Your task to perform on an android device: empty trash in google photos Image 0: 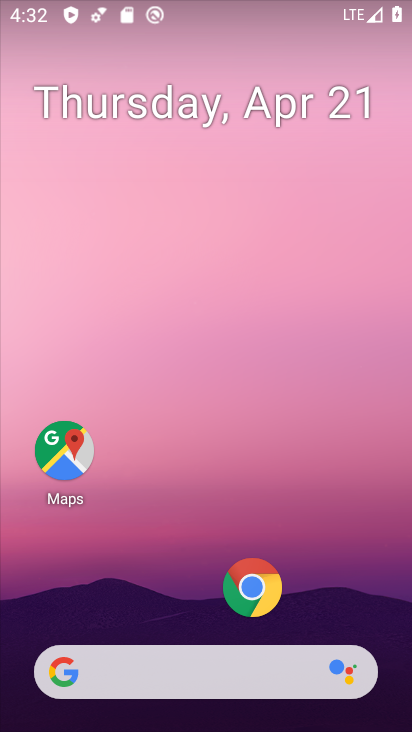
Step 0: drag from (181, 436) to (240, 110)
Your task to perform on an android device: empty trash in google photos Image 1: 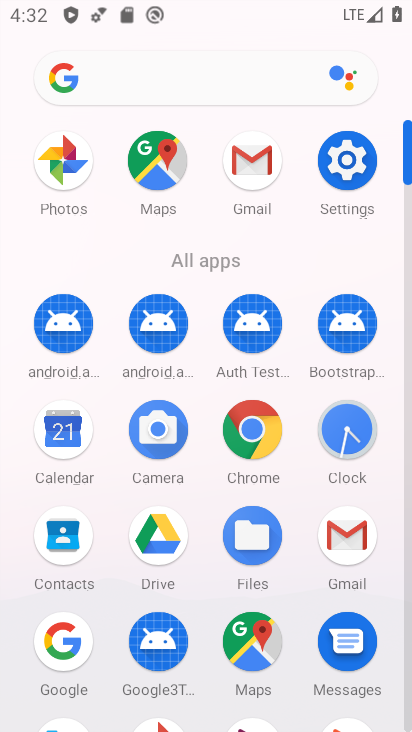
Step 1: drag from (203, 674) to (283, 379)
Your task to perform on an android device: empty trash in google photos Image 2: 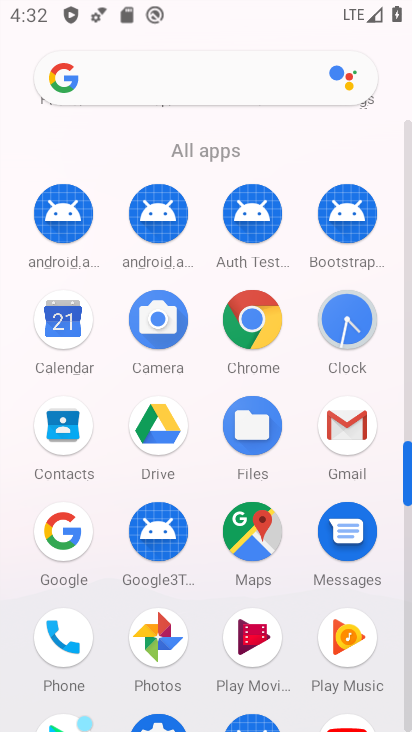
Step 2: click (158, 640)
Your task to perform on an android device: empty trash in google photos Image 3: 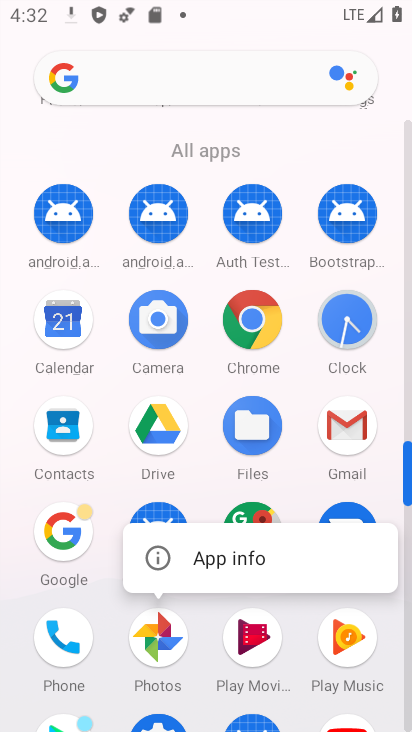
Step 3: click (140, 647)
Your task to perform on an android device: empty trash in google photos Image 4: 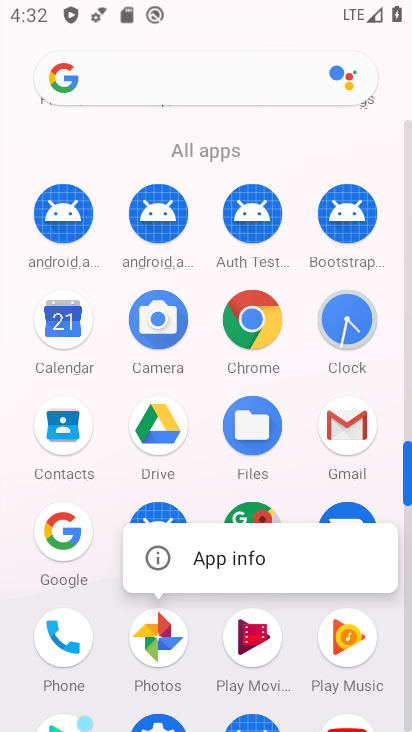
Step 4: click (159, 648)
Your task to perform on an android device: empty trash in google photos Image 5: 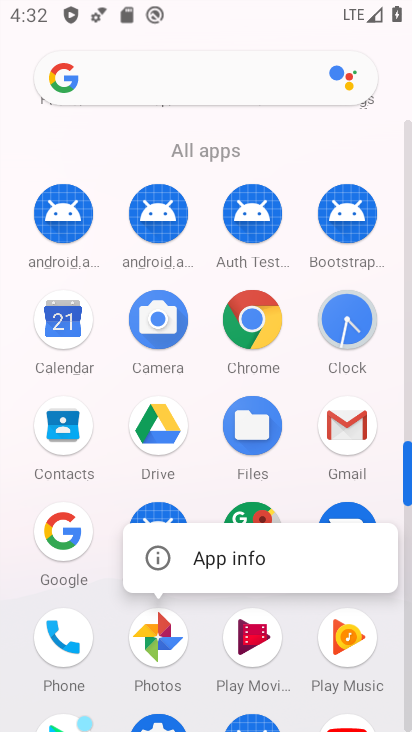
Step 5: click (169, 647)
Your task to perform on an android device: empty trash in google photos Image 6: 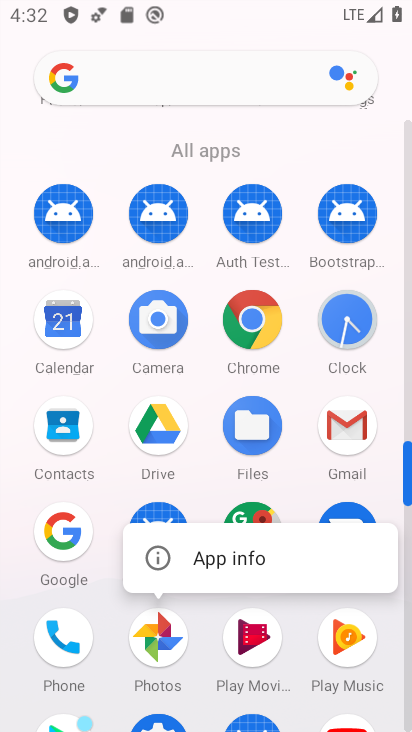
Step 6: click (171, 646)
Your task to perform on an android device: empty trash in google photos Image 7: 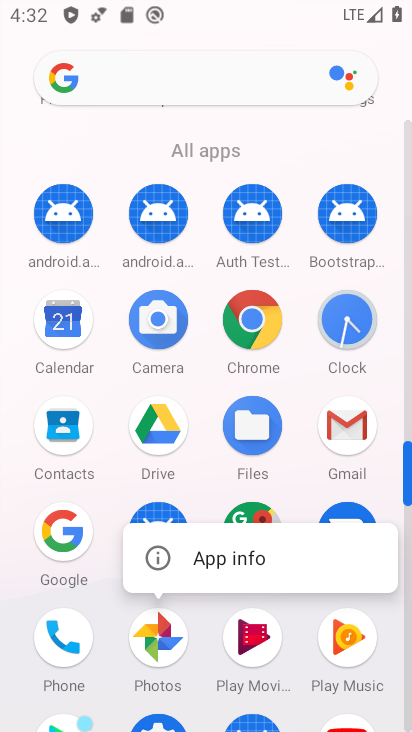
Step 7: click (166, 645)
Your task to perform on an android device: empty trash in google photos Image 8: 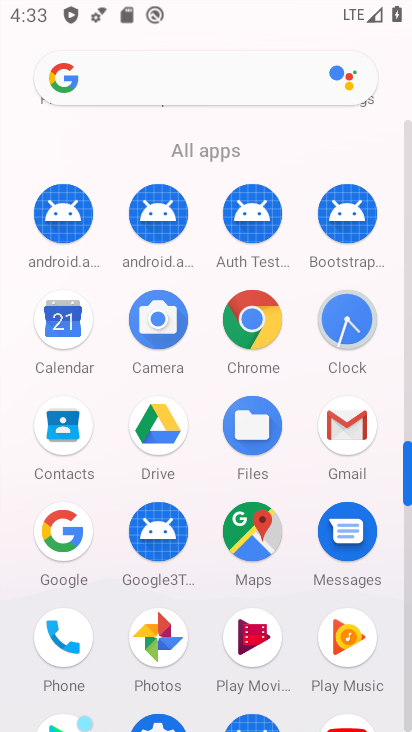
Step 8: click (173, 638)
Your task to perform on an android device: empty trash in google photos Image 9: 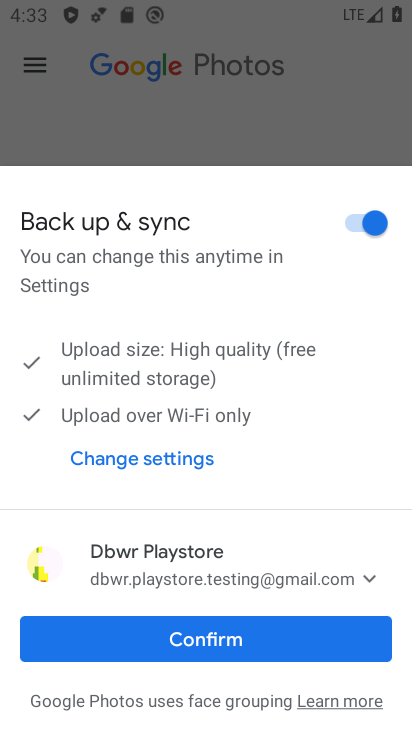
Step 9: click (238, 651)
Your task to perform on an android device: empty trash in google photos Image 10: 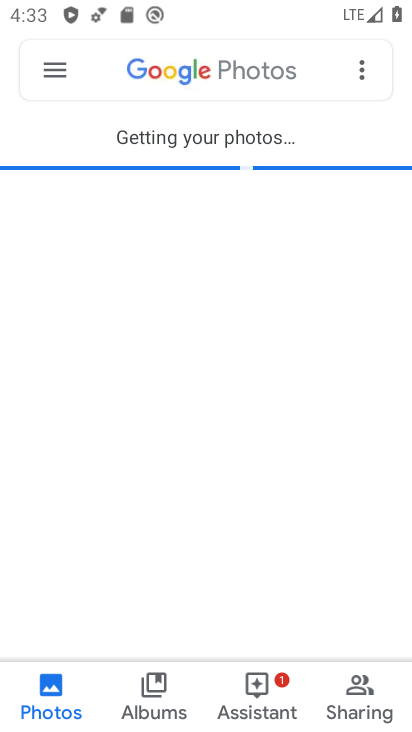
Step 10: click (58, 72)
Your task to perform on an android device: empty trash in google photos Image 11: 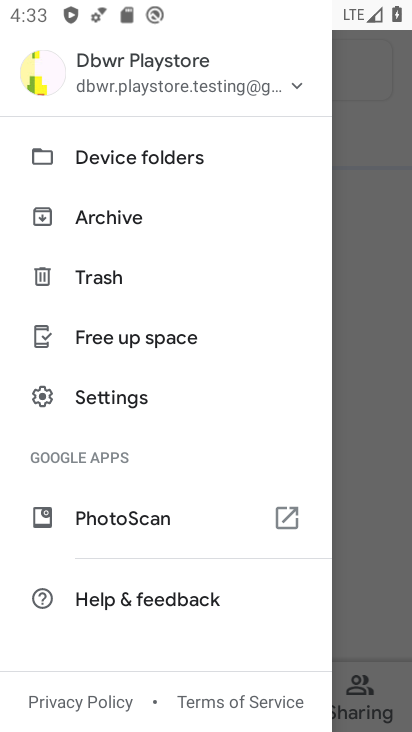
Step 11: click (182, 279)
Your task to perform on an android device: empty trash in google photos Image 12: 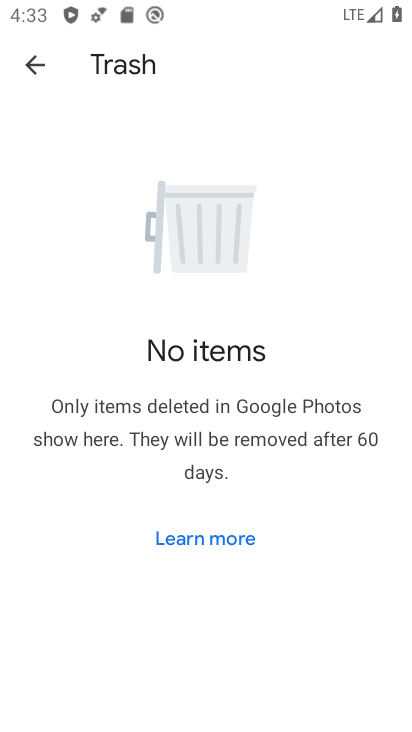
Step 12: task complete